Your task to perform on an android device: Open Google Image 0: 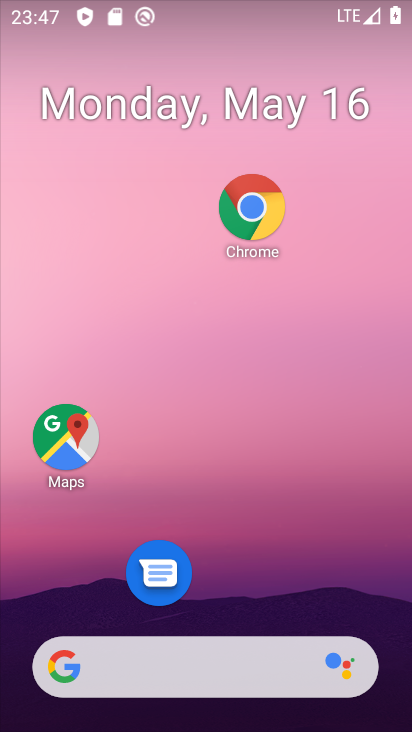
Step 0: drag from (221, 686) to (179, 134)
Your task to perform on an android device: Open Google Image 1: 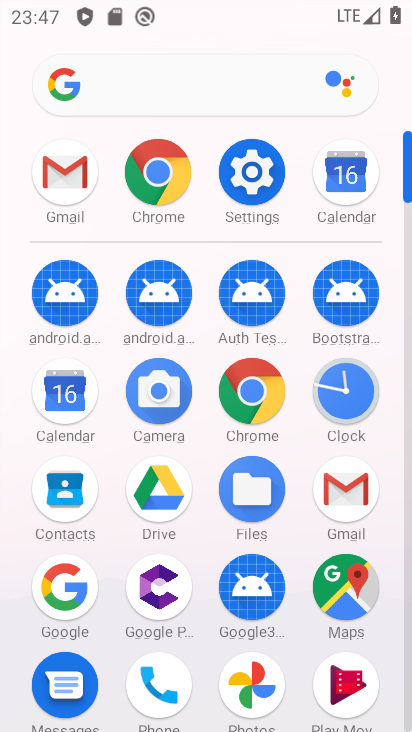
Step 1: click (251, 388)
Your task to perform on an android device: Open Google Image 2: 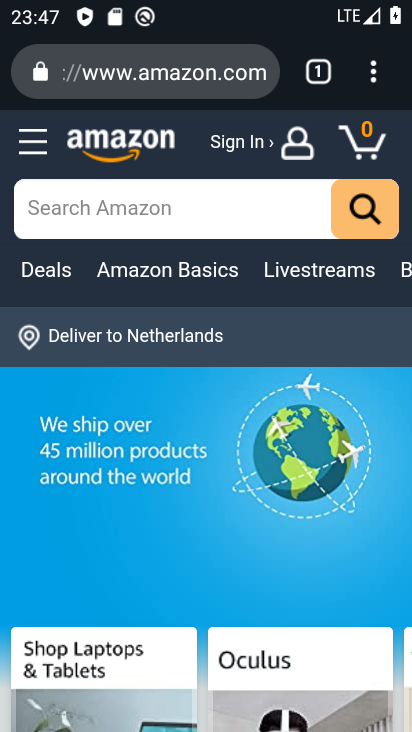
Step 2: task complete